Your task to perform on an android device: see creations saved in the google photos Image 0: 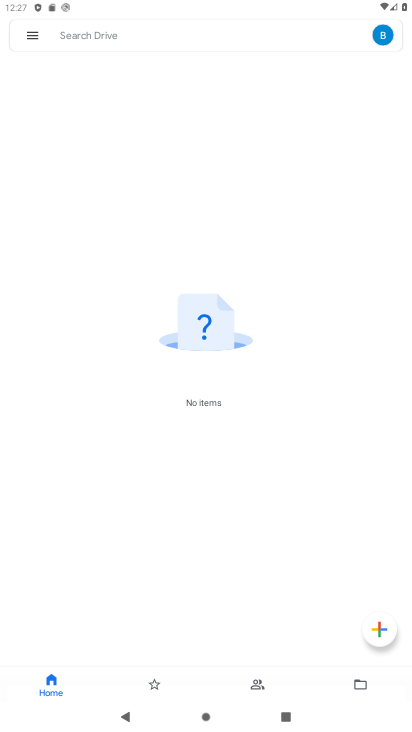
Step 0: press home button
Your task to perform on an android device: see creations saved in the google photos Image 1: 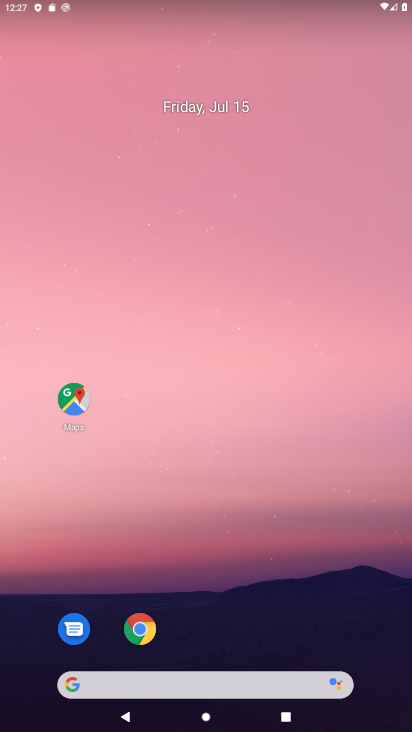
Step 1: drag from (216, 653) to (217, 71)
Your task to perform on an android device: see creations saved in the google photos Image 2: 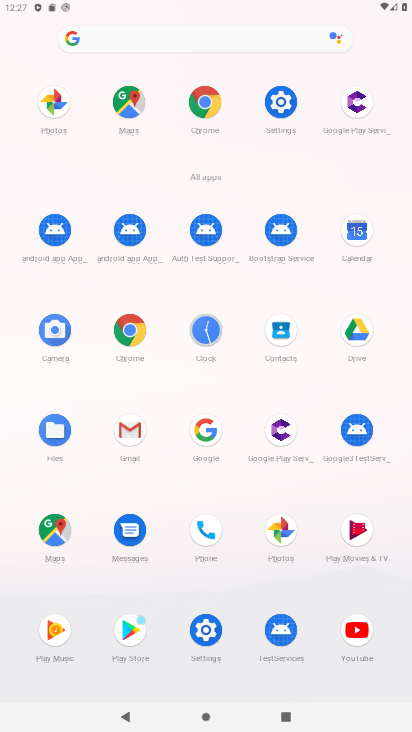
Step 2: click (278, 535)
Your task to perform on an android device: see creations saved in the google photos Image 3: 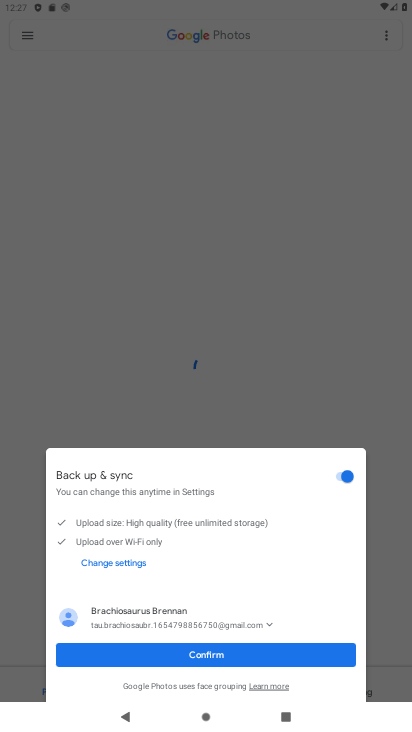
Step 3: click (223, 658)
Your task to perform on an android device: see creations saved in the google photos Image 4: 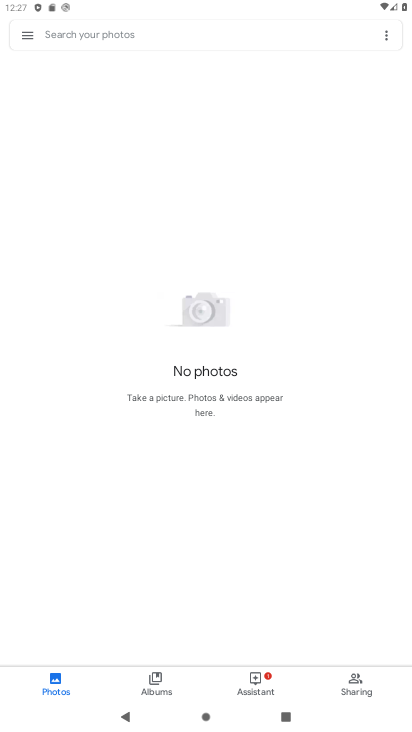
Step 4: click (163, 31)
Your task to perform on an android device: see creations saved in the google photos Image 5: 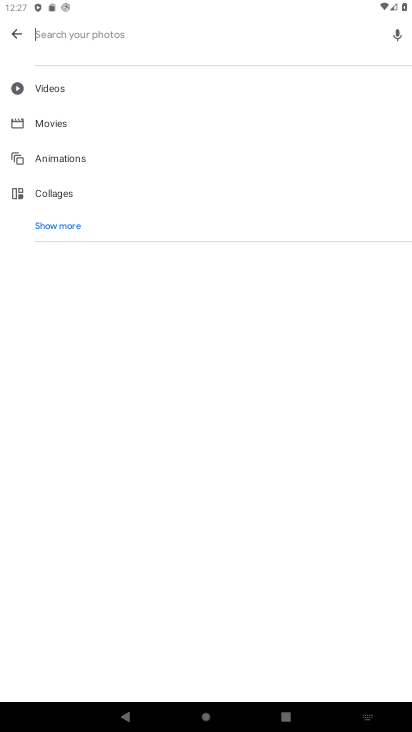
Step 5: type "creations"
Your task to perform on an android device: see creations saved in the google photos Image 6: 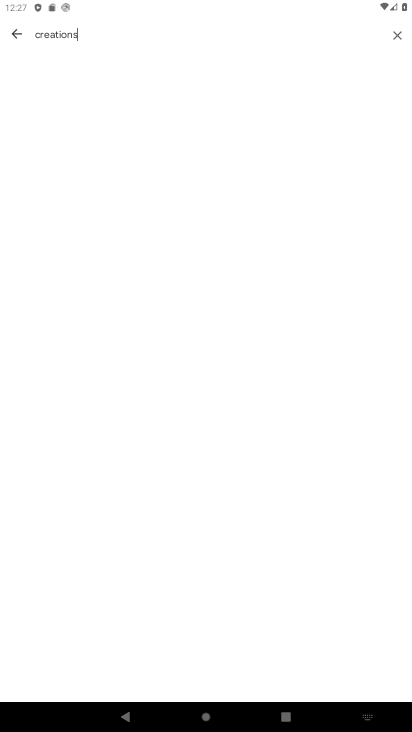
Step 6: task complete